Your task to perform on an android device: Go to privacy settings Image 0: 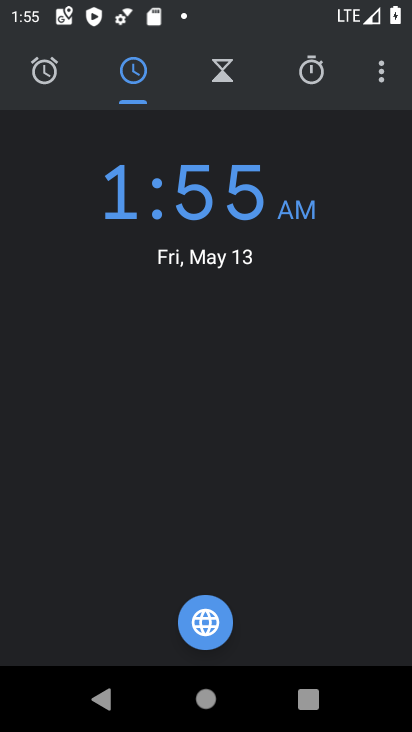
Step 0: press back button
Your task to perform on an android device: Go to privacy settings Image 1: 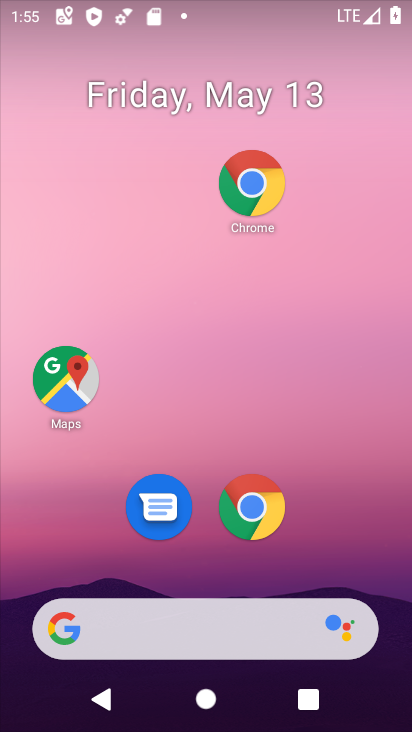
Step 1: drag from (330, 521) to (162, 61)
Your task to perform on an android device: Go to privacy settings Image 2: 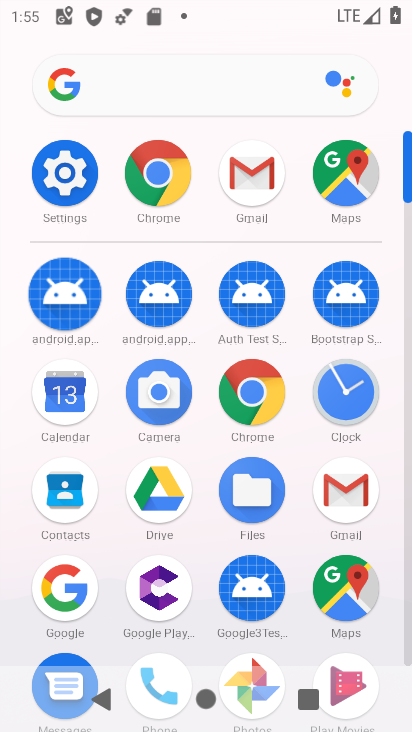
Step 2: click (63, 178)
Your task to perform on an android device: Go to privacy settings Image 3: 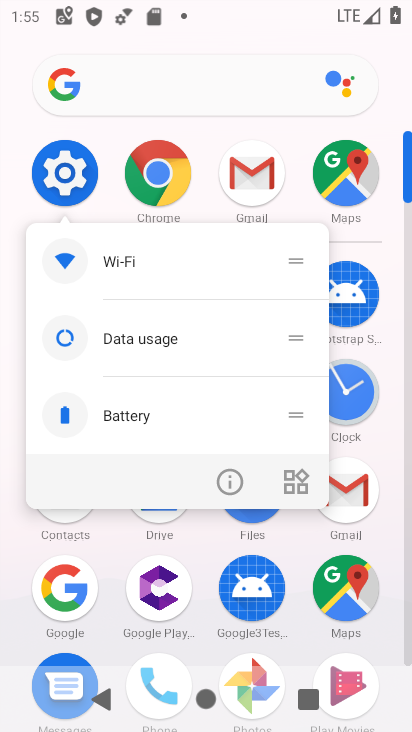
Step 3: click (46, 172)
Your task to perform on an android device: Go to privacy settings Image 4: 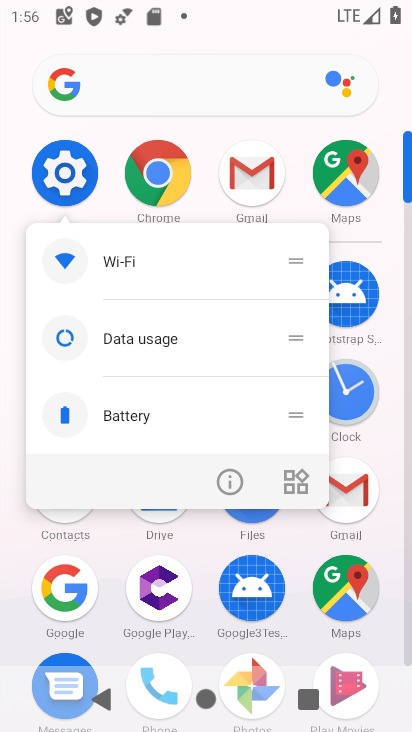
Step 4: click (63, 182)
Your task to perform on an android device: Go to privacy settings Image 5: 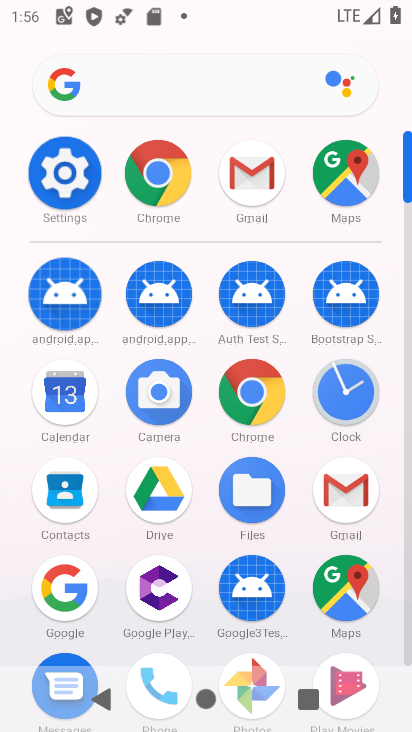
Step 5: click (63, 180)
Your task to perform on an android device: Go to privacy settings Image 6: 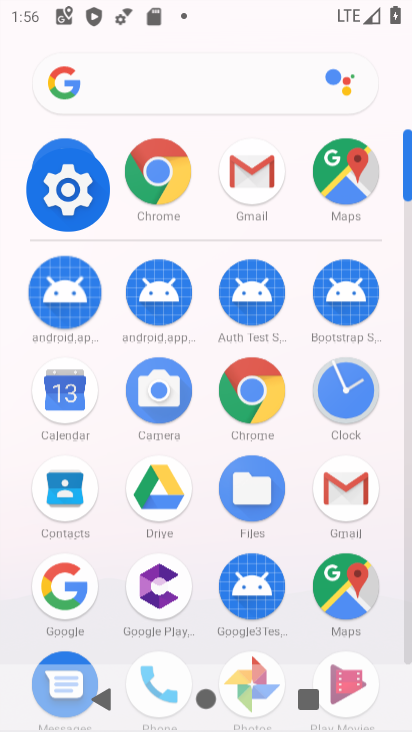
Step 6: click (63, 179)
Your task to perform on an android device: Go to privacy settings Image 7: 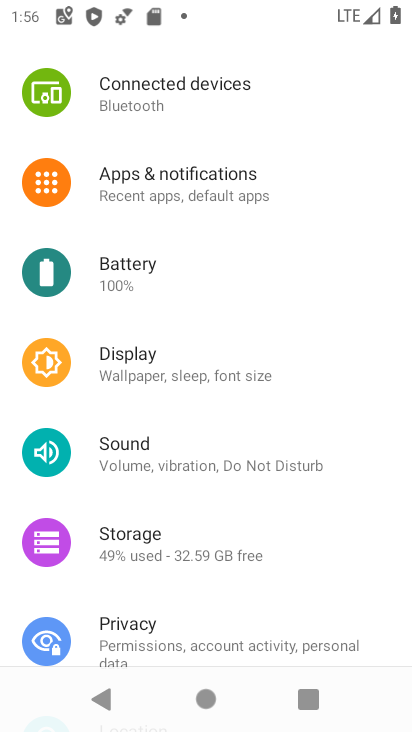
Step 7: click (129, 623)
Your task to perform on an android device: Go to privacy settings Image 8: 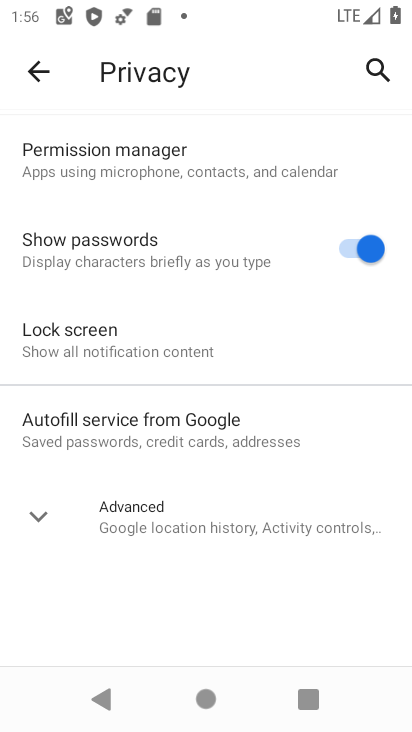
Step 8: task complete